Your task to perform on an android device: Search for Mexican restaurants on Maps Image 0: 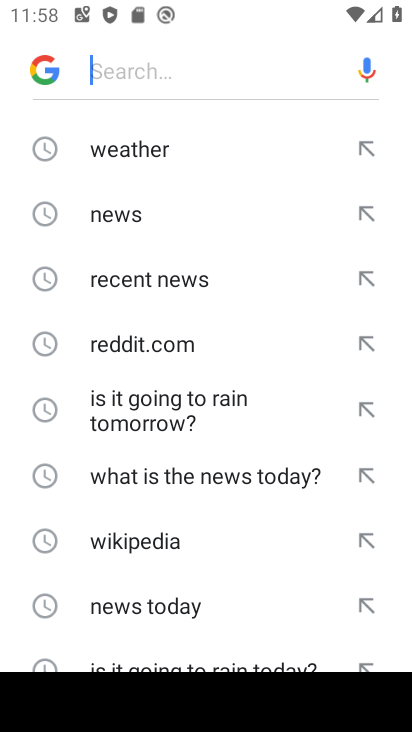
Step 0: press home button
Your task to perform on an android device: Search for Mexican restaurants on Maps Image 1: 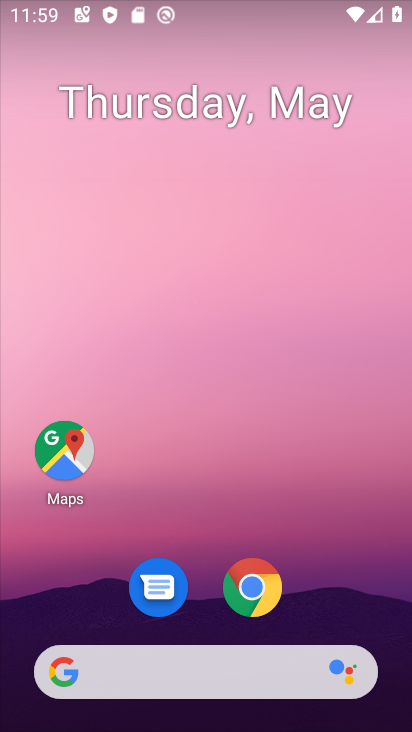
Step 1: click (75, 470)
Your task to perform on an android device: Search for Mexican restaurants on Maps Image 2: 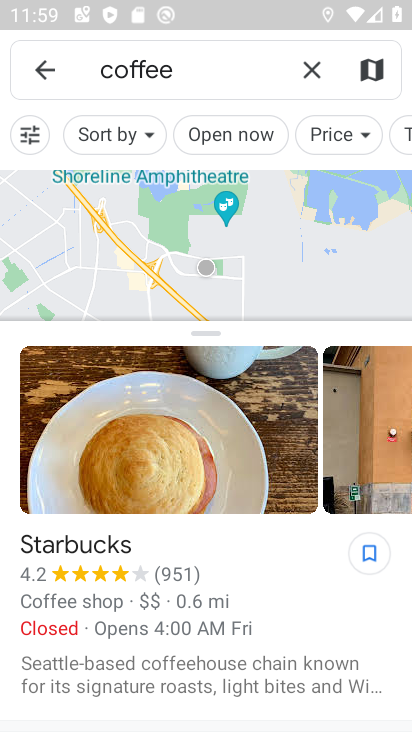
Step 2: click (318, 69)
Your task to perform on an android device: Search for Mexican restaurants on Maps Image 3: 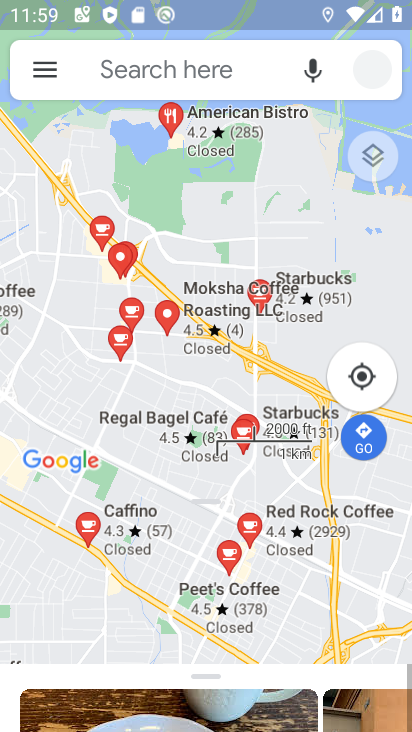
Step 3: click (241, 65)
Your task to perform on an android device: Search for Mexican restaurants on Maps Image 4: 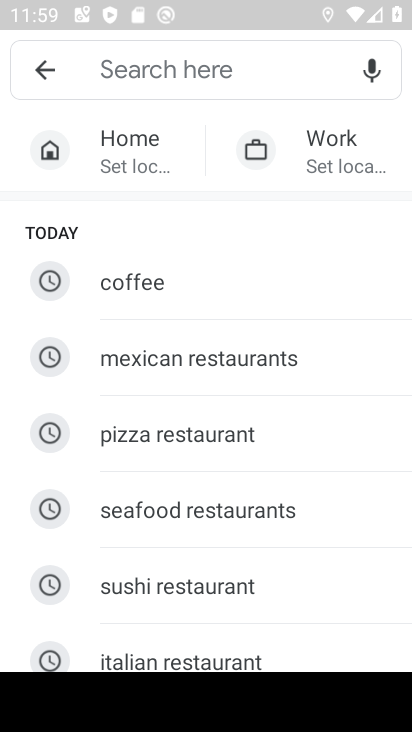
Step 4: click (282, 357)
Your task to perform on an android device: Search for Mexican restaurants on Maps Image 5: 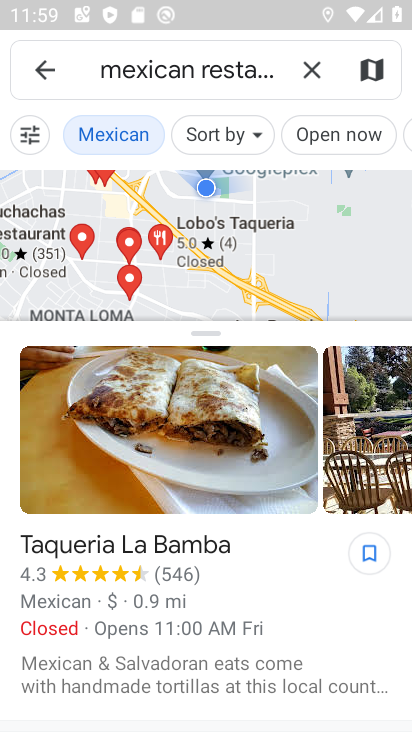
Step 5: task complete